Your task to perform on an android device: Open the web browser Image 0: 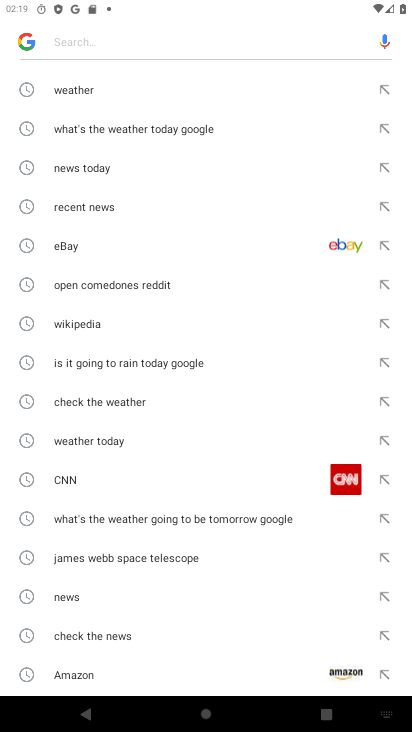
Step 0: type "web browser"
Your task to perform on an android device: Open the web browser Image 1: 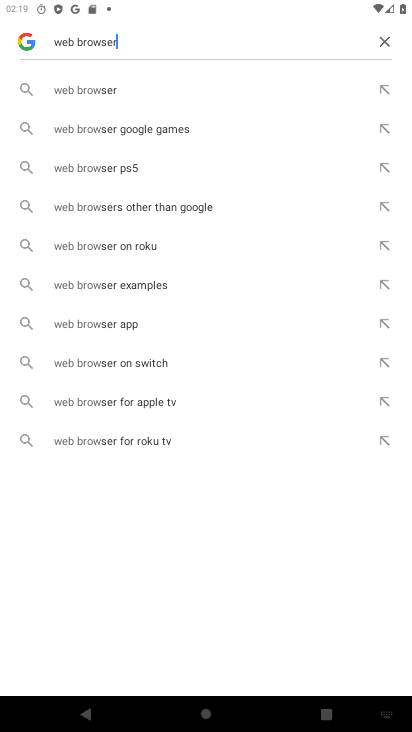
Step 1: type ""
Your task to perform on an android device: Open the web browser Image 2: 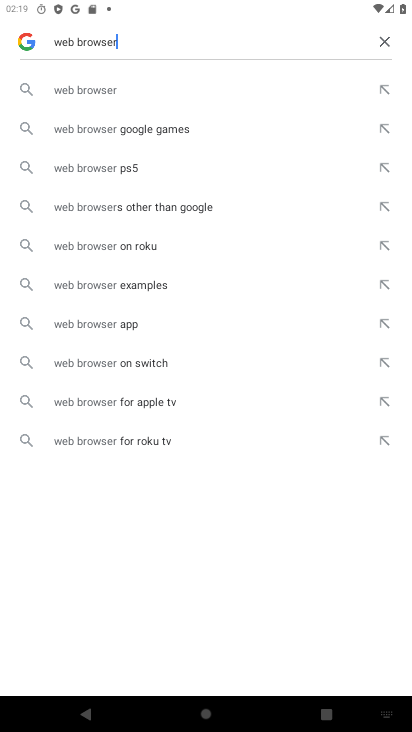
Step 2: click (110, 92)
Your task to perform on an android device: Open the web browser Image 3: 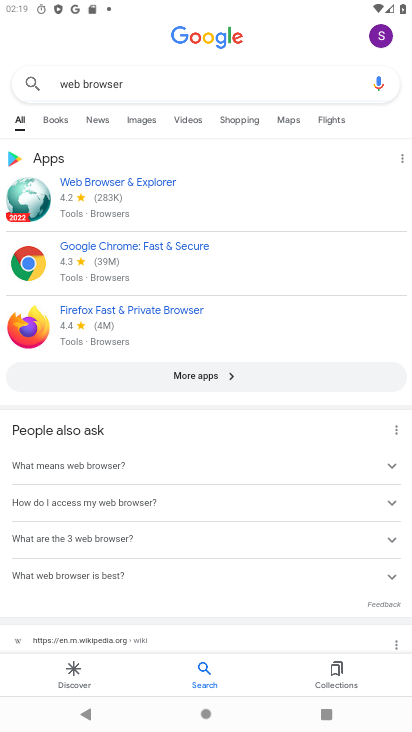
Step 3: task complete